Your task to perform on an android device: When is my next meeting? Image 0: 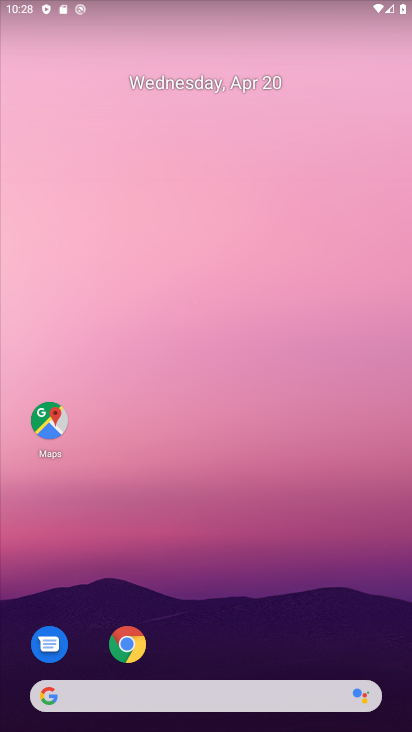
Step 0: drag from (197, 559) to (218, 42)
Your task to perform on an android device: When is my next meeting? Image 1: 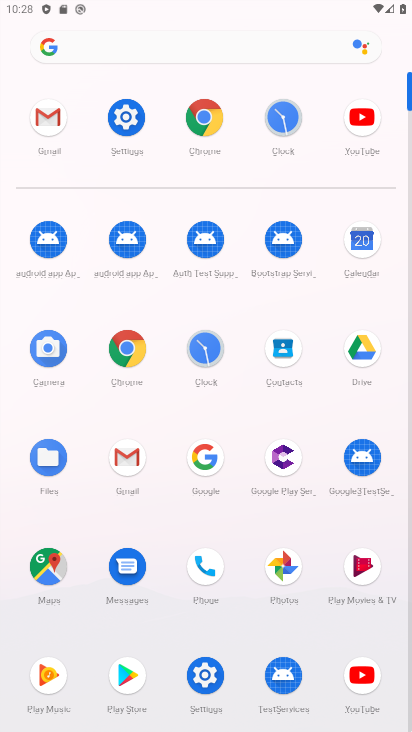
Step 1: click (359, 239)
Your task to perform on an android device: When is my next meeting? Image 2: 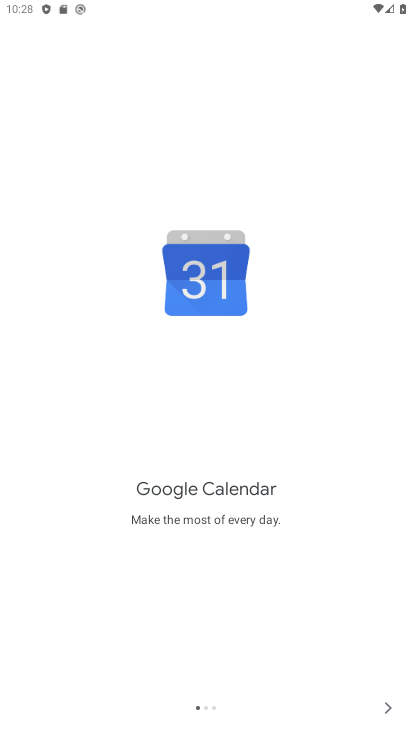
Step 2: click (387, 711)
Your task to perform on an android device: When is my next meeting? Image 3: 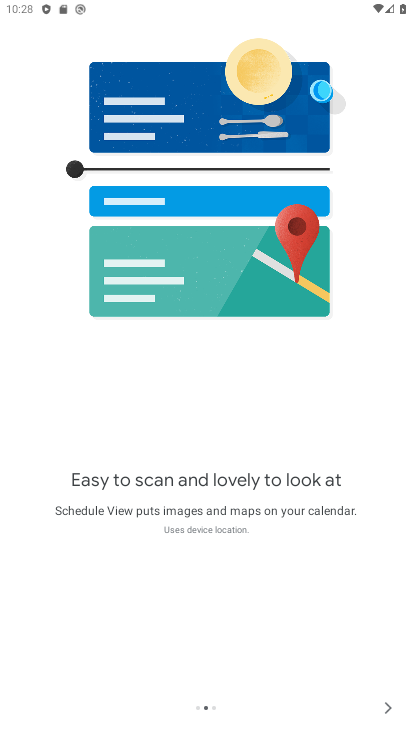
Step 3: click (387, 711)
Your task to perform on an android device: When is my next meeting? Image 4: 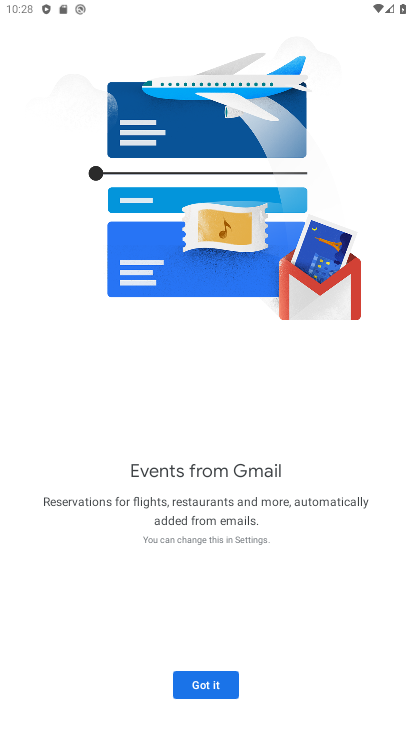
Step 4: click (201, 682)
Your task to perform on an android device: When is my next meeting? Image 5: 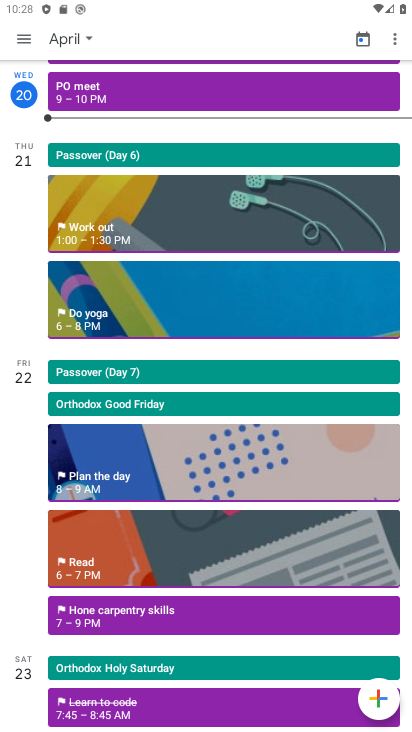
Step 5: click (84, 33)
Your task to perform on an android device: When is my next meeting? Image 6: 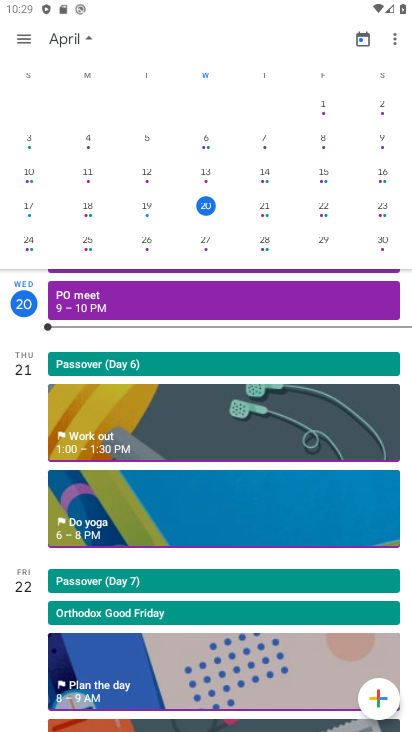
Step 6: click (99, 311)
Your task to perform on an android device: When is my next meeting? Image 7: 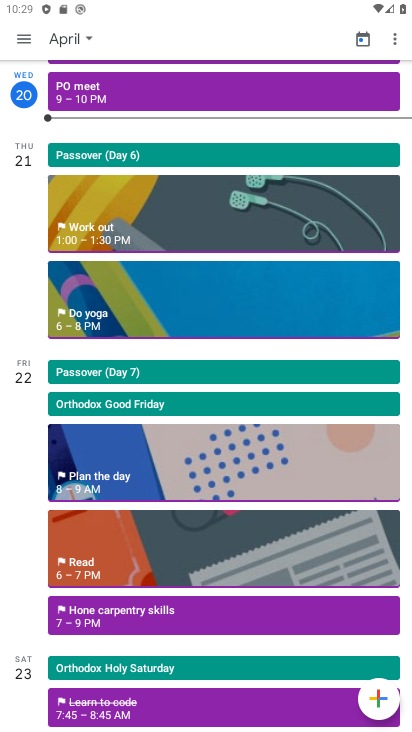
Step 7: click (145, 88)
Your task to perform on an android device: When is my next meeting? Image 8: 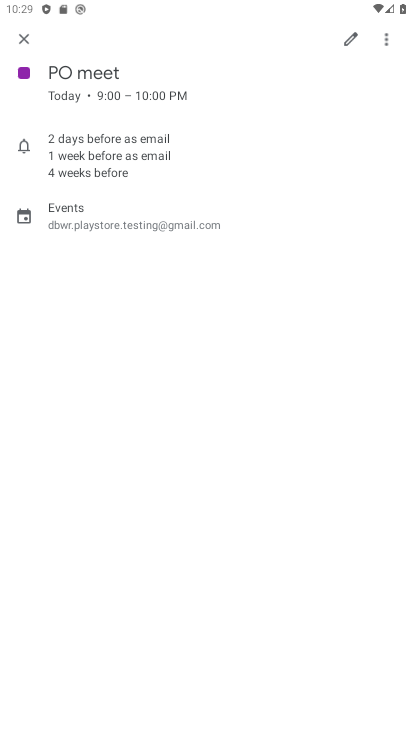
Step 8: task complete